Your task to perform on an android device: Show me the alarms in the clock app Image 0: 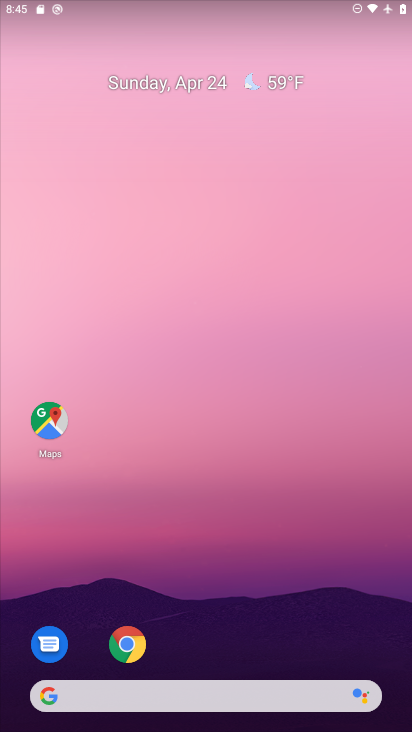
Step 0: drag from (224, 642) to (271, 20)
Your task to perform on an android device: Show me the alarms in the clock app Image 1: 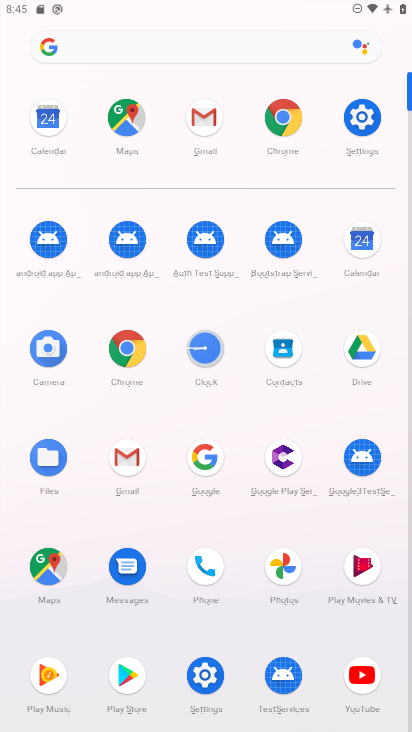
Step 1: click (207, 344)
Your task to perform on an android device: Show me the alarms in the clock app Image 2: 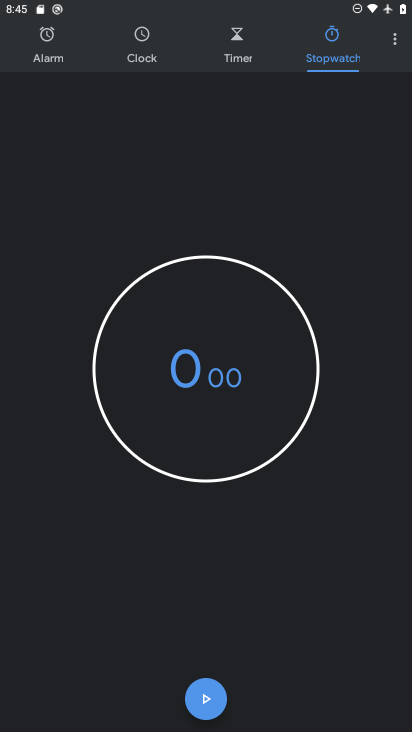
Step 2: click (397, 33)
Your task to perform on an android device: Show me the alarms in the clock app Image 3: 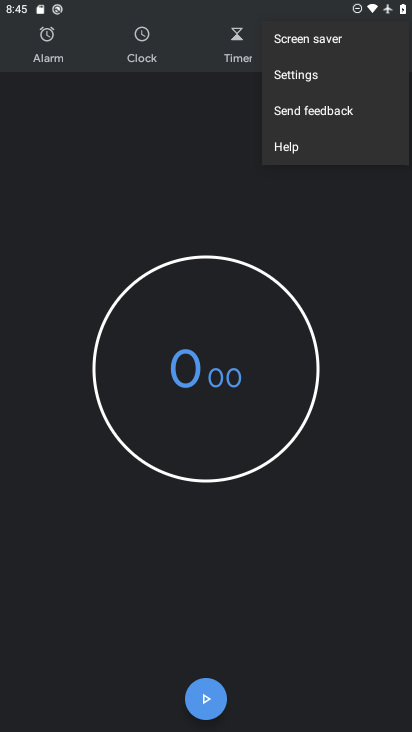
Step 3: click (114, 241)
Your task to perform on an android device: Show me the alarms in the clock app Image 4: 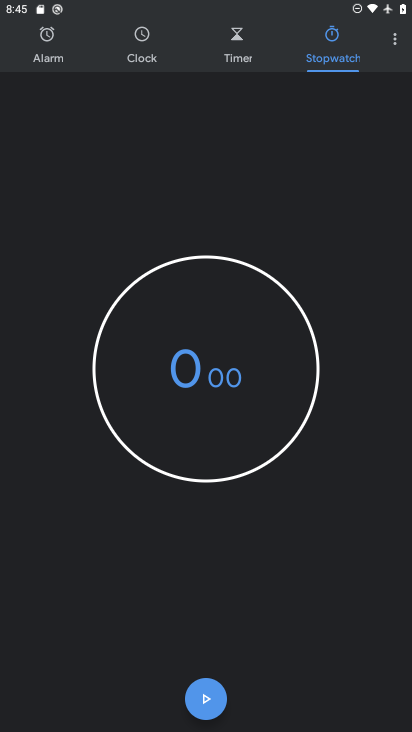
Step 4: click (41, 45)
Your task to perform on an android device: Show me the alarms in the clock app Image 5: 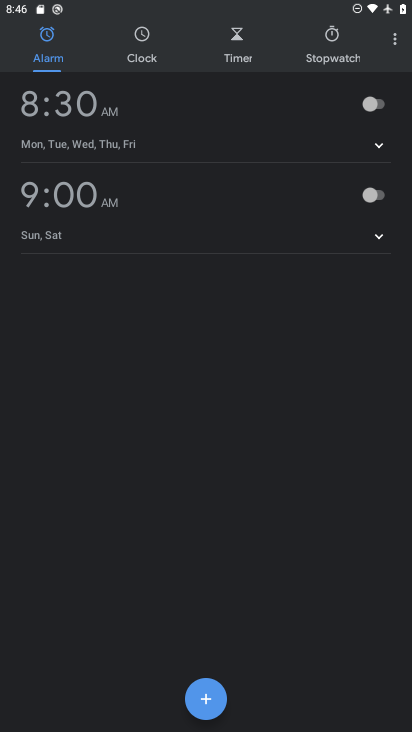
Step 5: task complete